Your task to perform on an android device: Show the shopping cart on walmart.com. Search for "razer thresher" on walmart.com, select the first entry, and add it to the cart. Image 0: 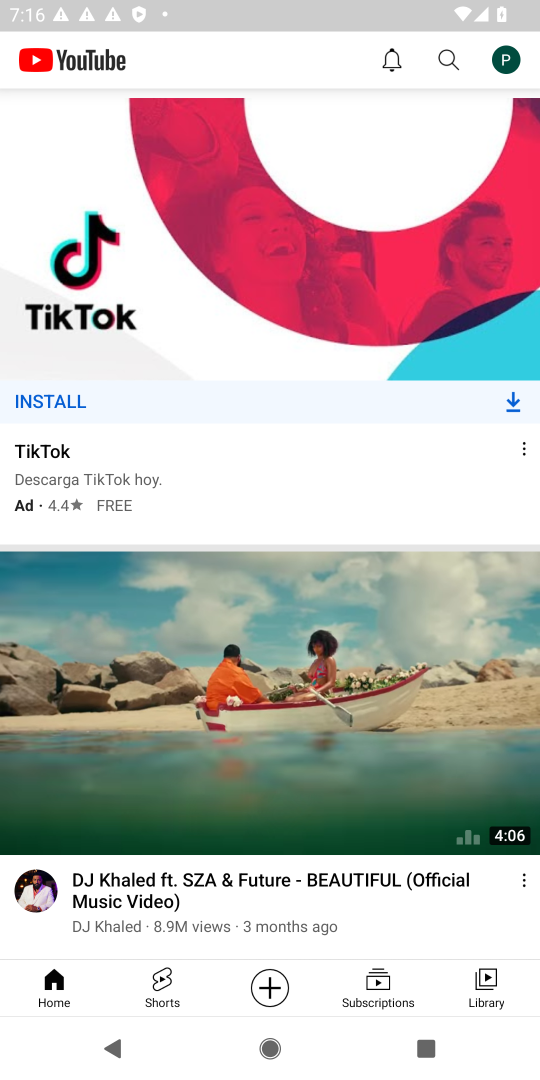
Step 0: press home button
Your task to perform on an android device: Show the shopping cart on walmart.com. Search for "razer thresher" on walmart.com, select the first entry, and add it to the cart. Image 1: 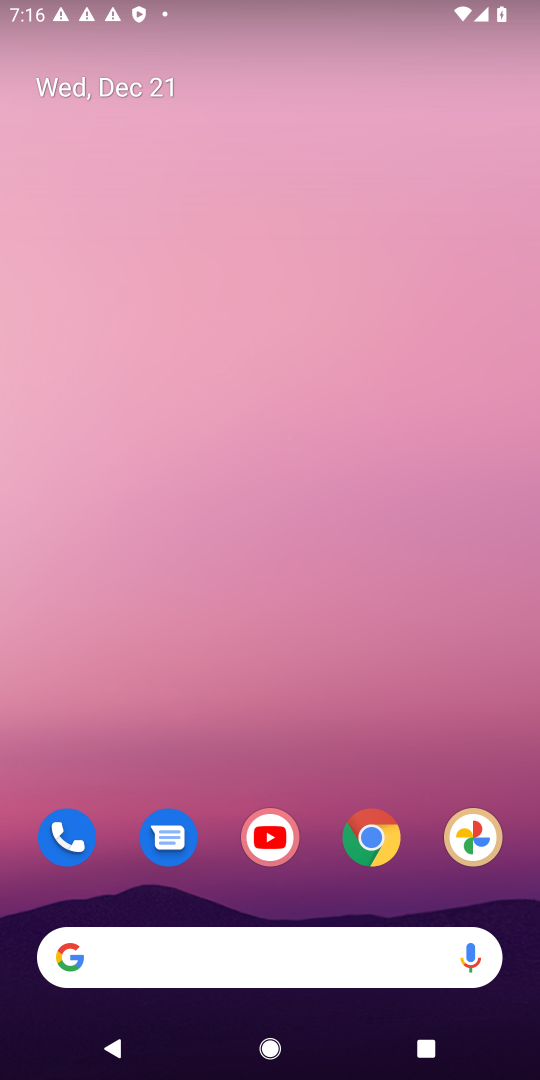
Step 1: drag from (275, 457) to (263, 274)
Your task to perform on an android device: Show the shopping cart on walmart.com. Search for "razer thresher" on walmart.com, select the first entry, and add it to the cart. Image 2: 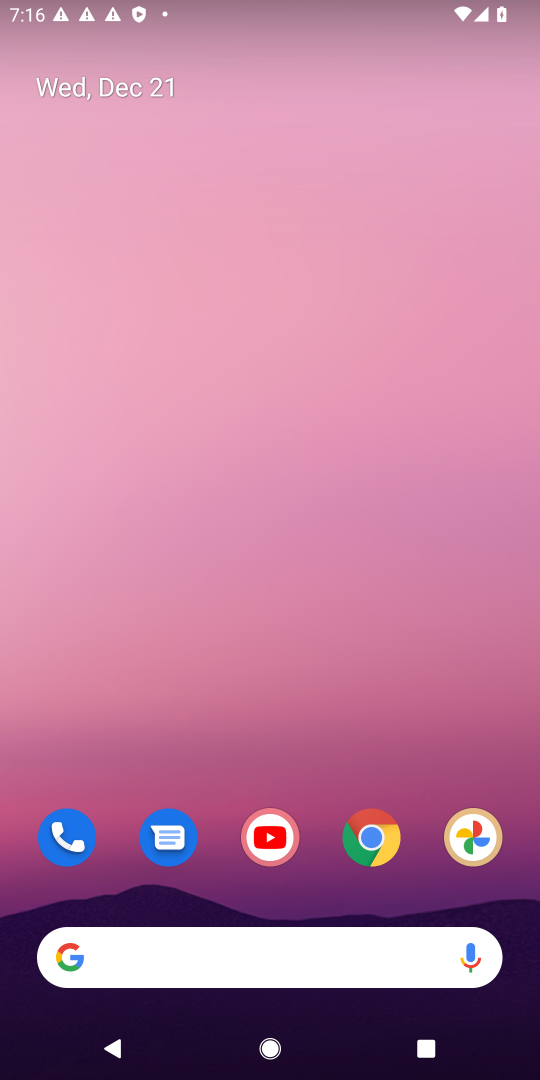
Step 2: drag from (194, 598) to (177, 132)
Your task to perform on an android device: Show the shopping cart on walmart.com. Search for "razer thresher" on walmart.com, select the first entry, and add it to the cart. Image 3: 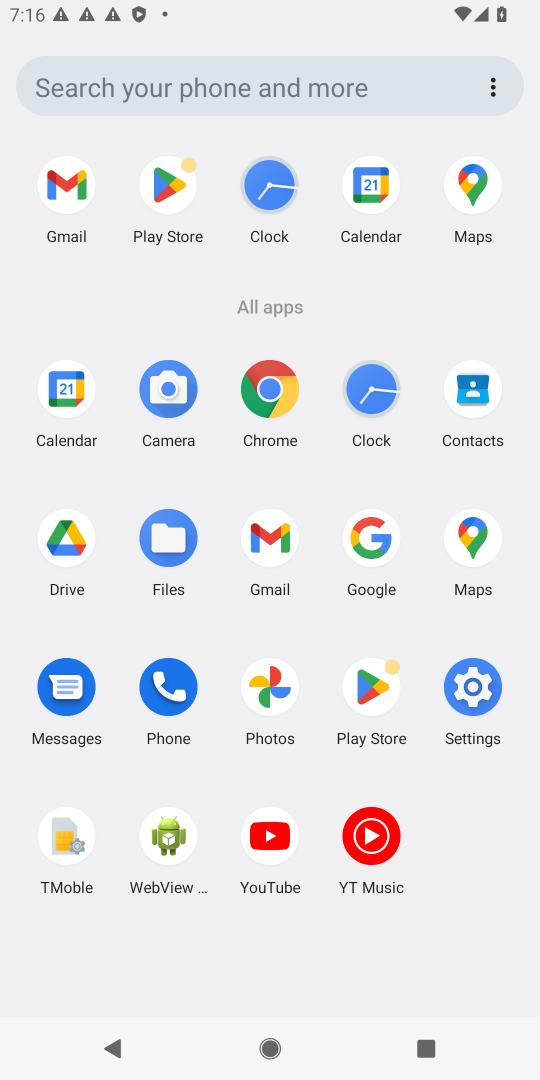
Step 3: click (377, 553)
Your task to perform on an android device: Show the shopping cart on walmart.com. Search for "razer thresher" on walmart.com, select the first entry, and add it to the cart. Image 4: 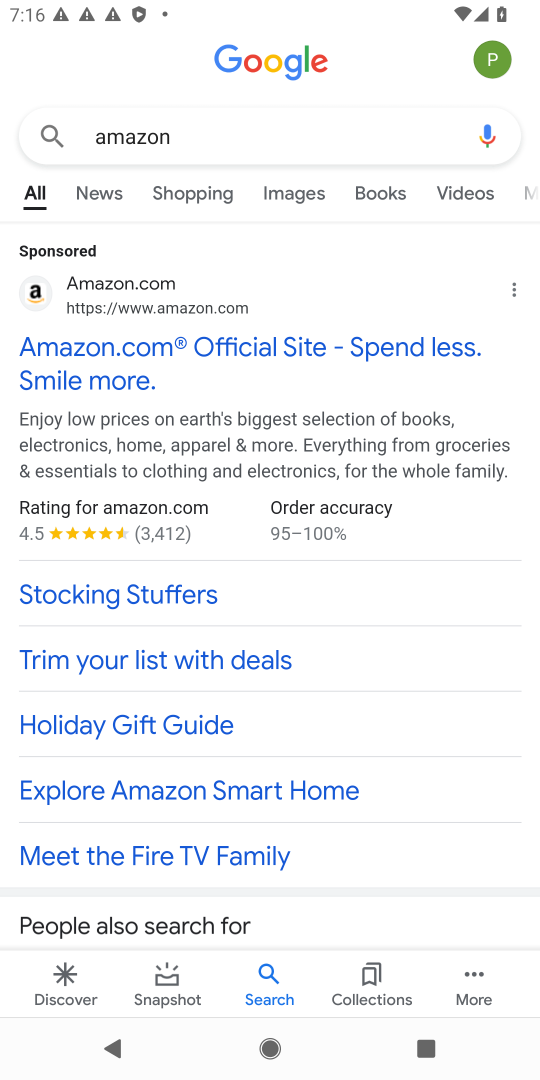
Step 4: click (128, 143)
Your task to perform on an android device: Show the shopping cart on walmart.com. Search for "razer thresher" on walmart.com, select the first entry, and add it to the cart. Image 5: 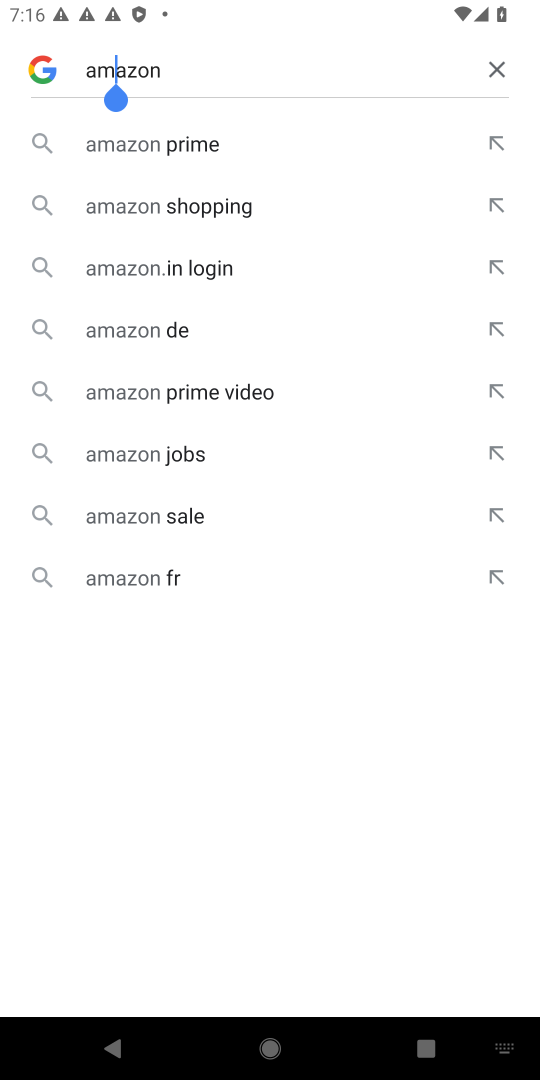
Step 5: click (490, 70)
Your task to perform on an android device: Show the shopping cart on walmart.com. Search for "razer thresher" on walmart.com, select the first entry, and add it to the cart. Image 6: 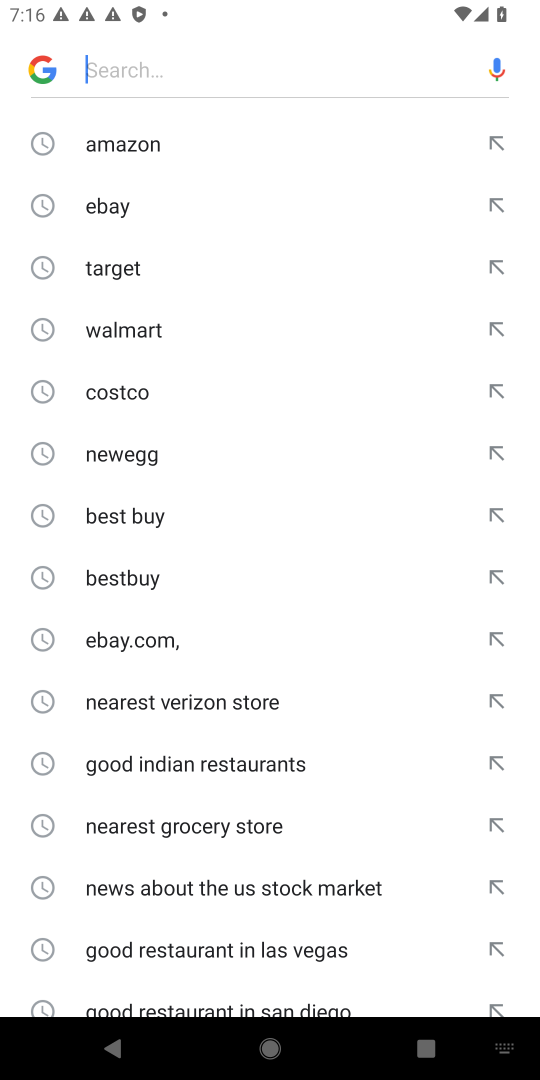
Step 6: click (118, 334)
Your task to perform on an android device: Show the shopping cart on walmart.com. Search for "razer thresher" on walmart.com, select the first entry, and add it to the cart. Image 7: 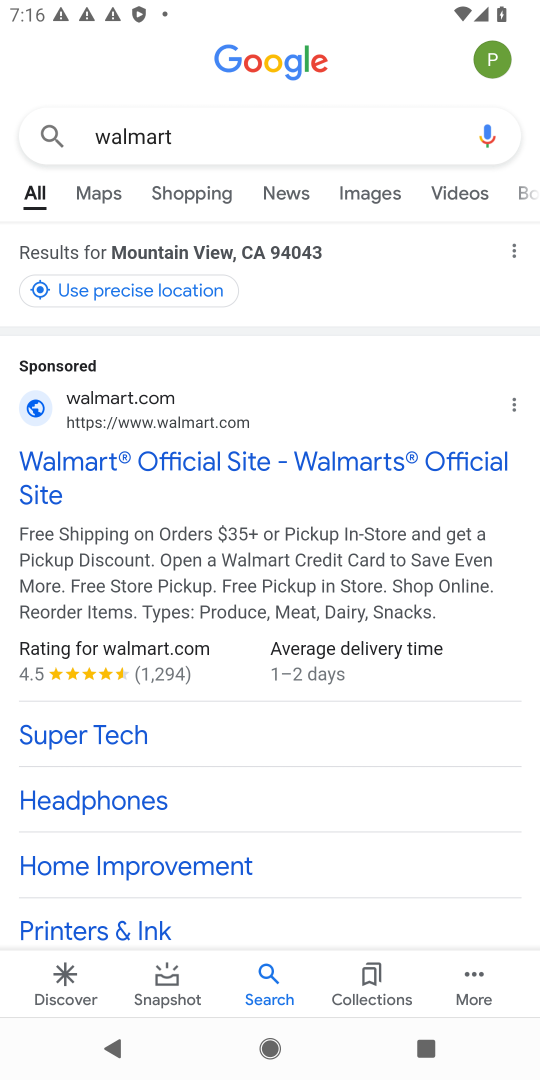
Step 7: click (96, 463)
Your task to perform on an android device: Show the shopping cart on walmart.com. Search for "razer thresher" on walmart.com, select the first entry, and add it to the cart. Image 8: 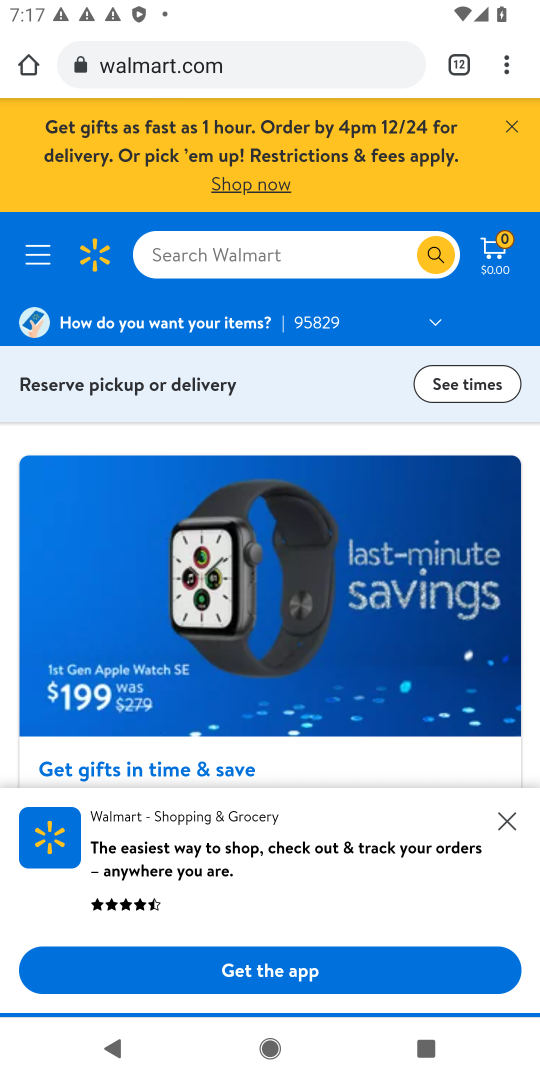
Step 8: click (490, 247)
Your task to perform on an android device: Show the shopping cart on walmart.com. Search for "razer thresher" on walmart.com, select the first entry, and add it to the cart. Image 9: 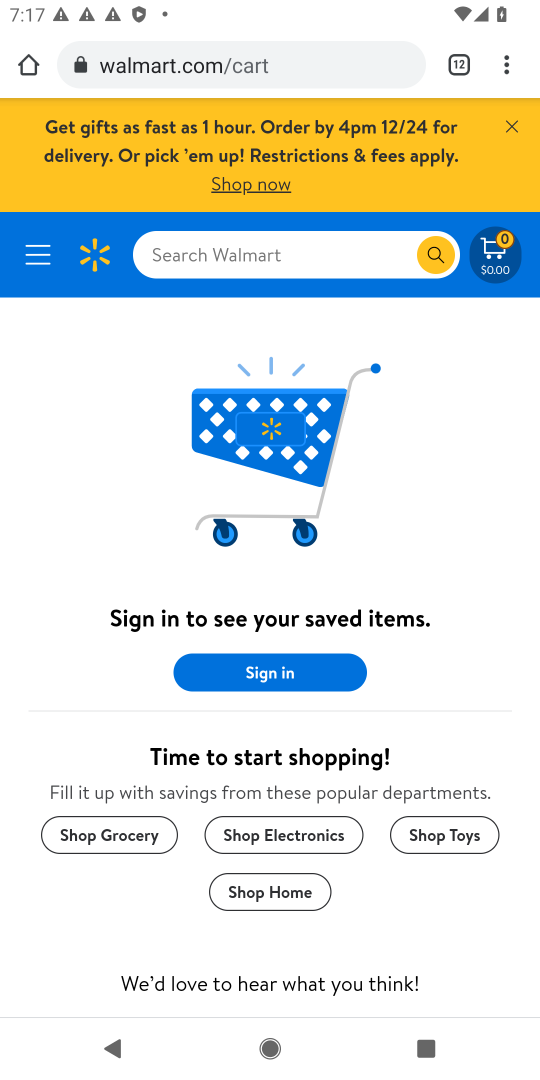
Step 9: click (184, 251)
Your task to perform on an android device: Show the shopping cart on walmart.com. Search for "razer thresher" on walmart.com, select the first entry, and add it to the cart. Image 10: 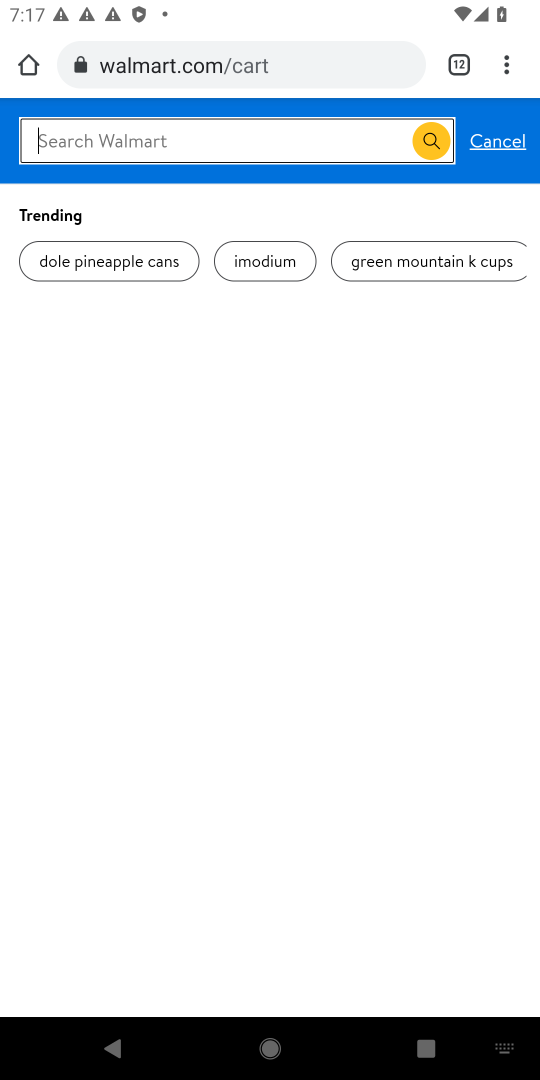
Step 10: type "razer thresher"
Your task to perform on an android device: Show the shopping cart on walmart.com. Search for "razer thresher" on walmart.com, select the first entry, and add it to the cart. Image 11: 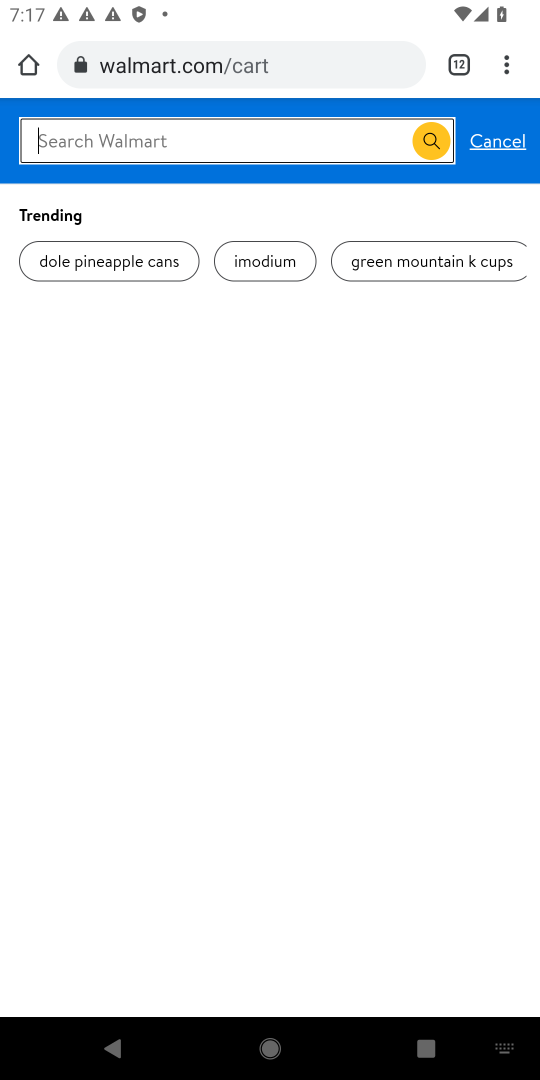
Step 11: click (424, 143)
Your task to perform on an android device: Show the shopping cart on walmart.com. Search for "razer thresher" on walmart.com, select the first entry, and add it to the cart. Image 12: 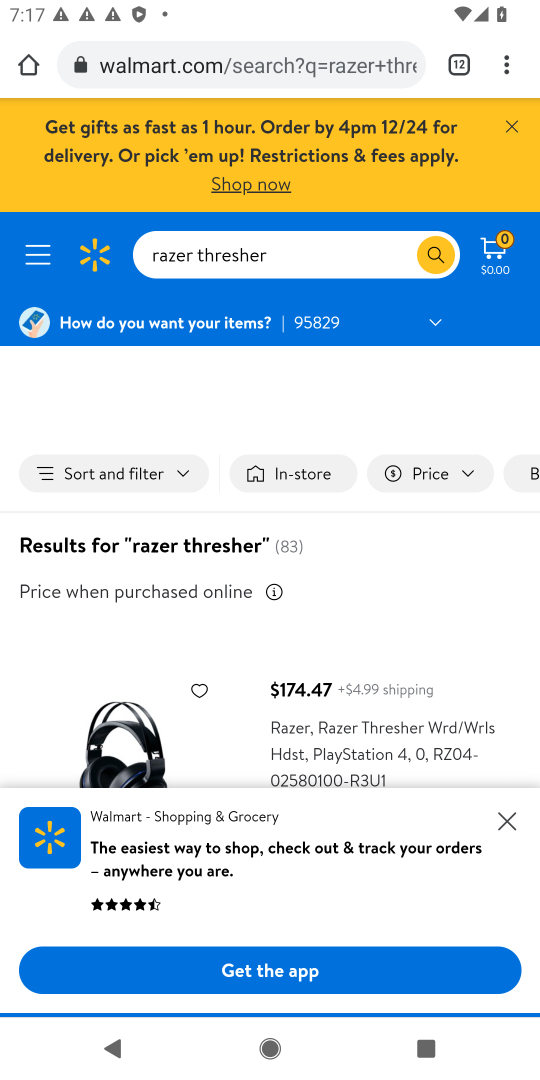
Step 12: click (503, 820)
Your task to perform on an android device: Show the shopping cart on walmart.com. Search for "razer thresher" on walmart.com, select the first entry, and add it to the cart. Image 13: 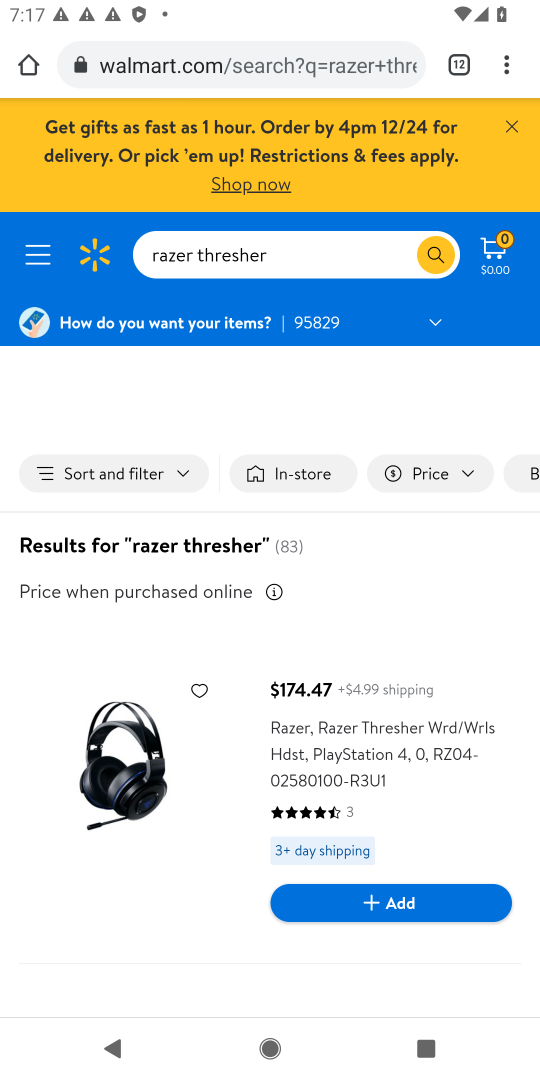
Step 13: drag from (388, 716) to (342, 249)
Your task to perform on an android device: Show the shopping cart on walmart.com. Search for "razer thresher" on walmart.com, select the first entry, and add it to the cart. Image 14: 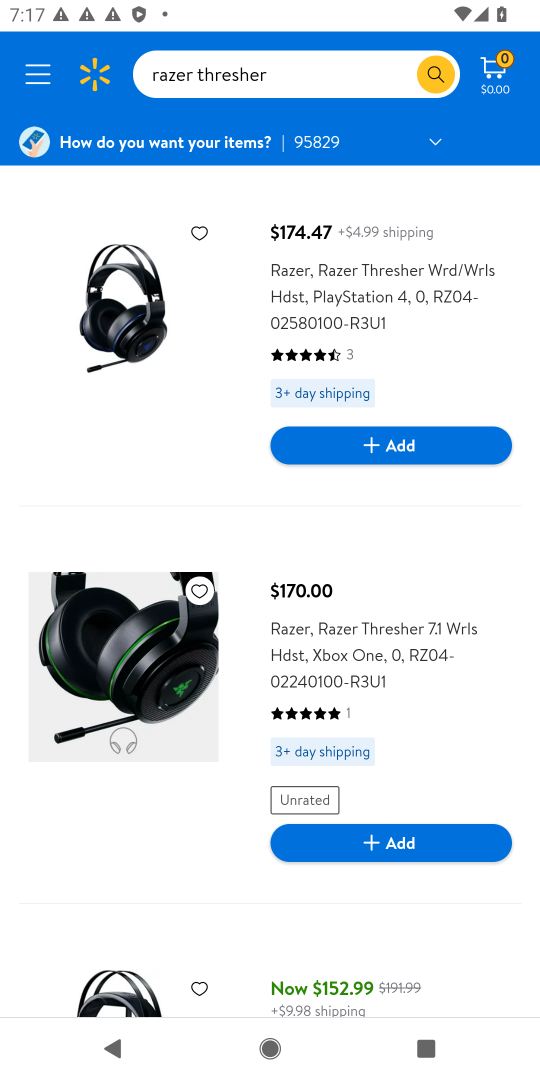
Step 14: click (438, 448)
Your task to perform on an android device: Show the shopping cart on walmart.com. Search for "razer thresher" on walmart.com, select the first entry, and add it to the cart. Image 15: 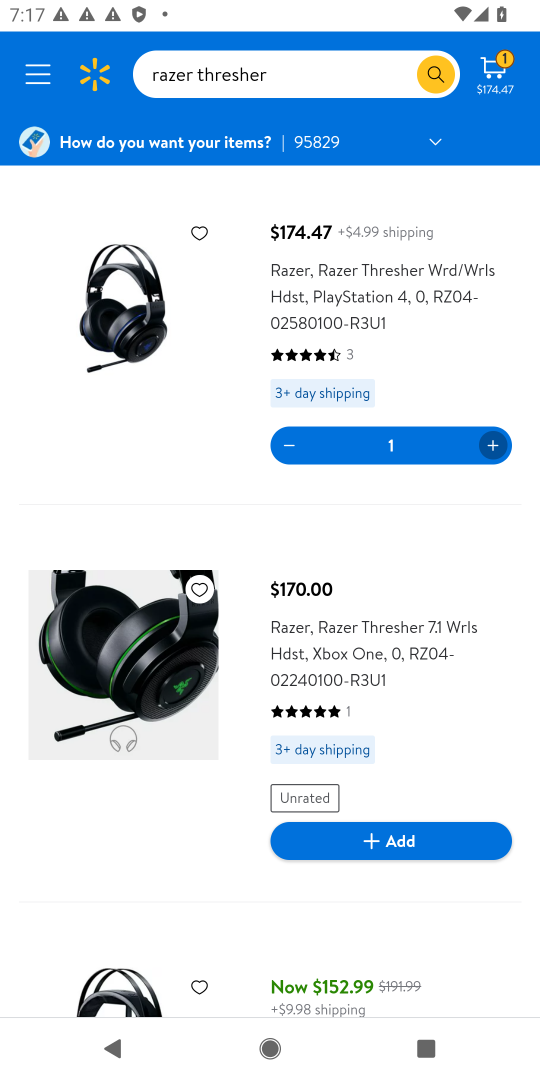
Step 15: click (490, 58)
Your task to perform on an android device: Show the shopping cart on walmart.com. Search for "razer thresher" on walmart.com, select the first entry, and add it to the cart. Image 16: 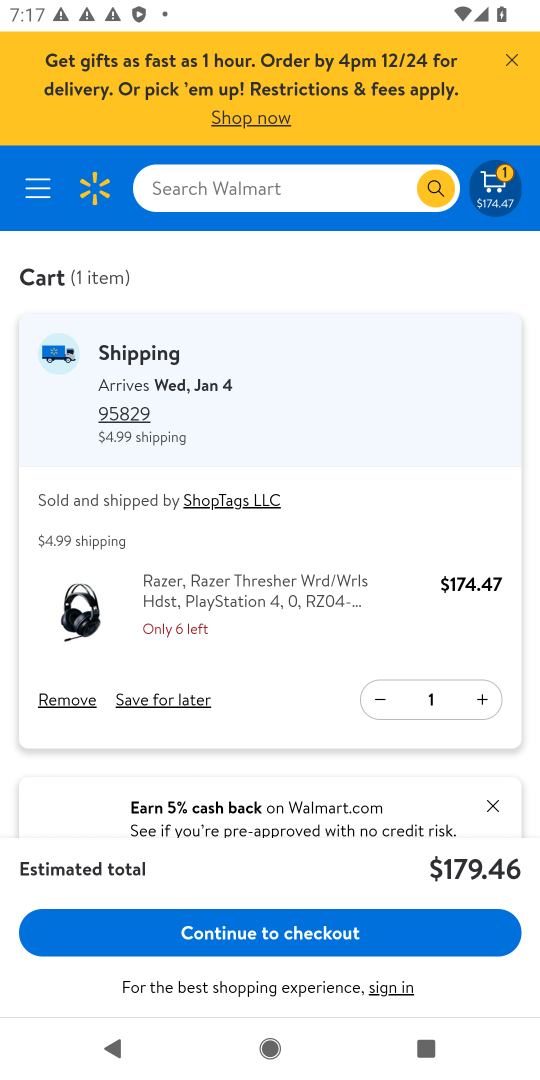
Step 16: click (259, 927)
Your task to perform on an android device: Show the shopping cart on walmart.com. Search for "razer thresher" on walmart.com, select the first entry, and add it to the cart. Image 17: 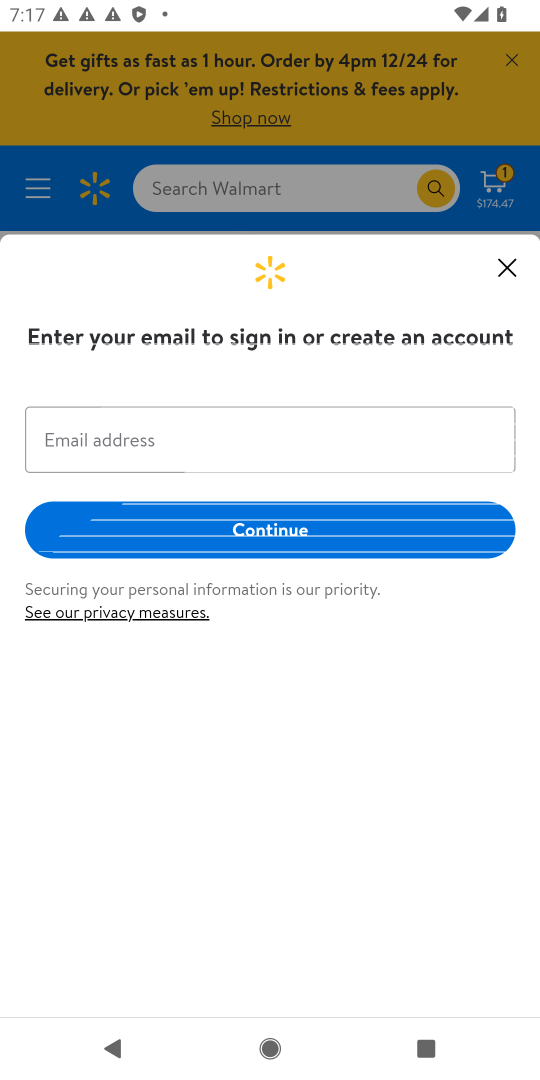
Step 17: task complete